Your task to perform on an android device: Go to location settings Image 0: 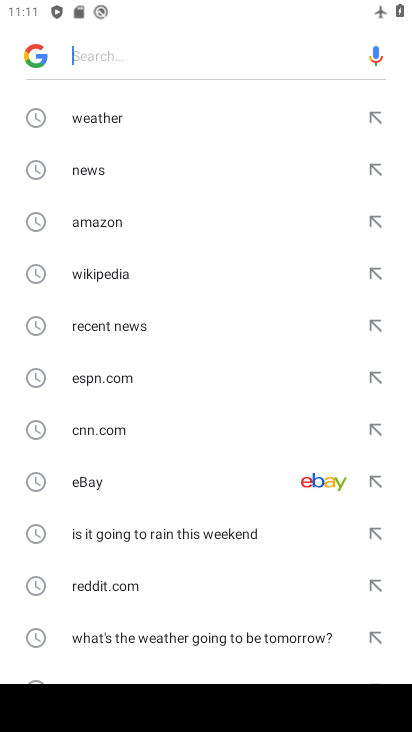
Step 0: press home button
Your task to perform on an android device: Go to location settings Image 1: 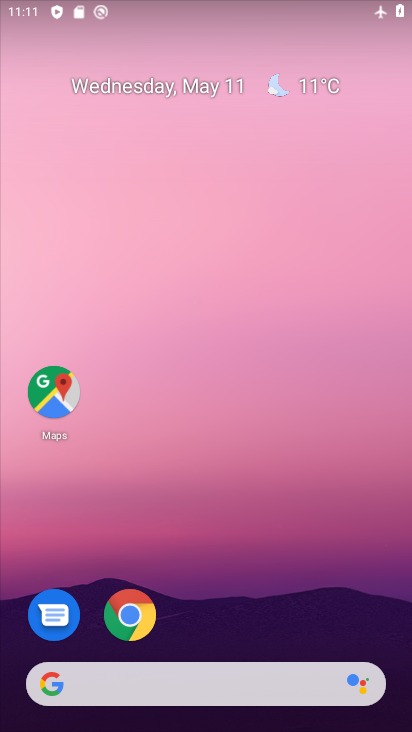
Step 1: drag from (276, 499) to (305, 72)
Your task to perform on an android device: Go to location settings Image 2: 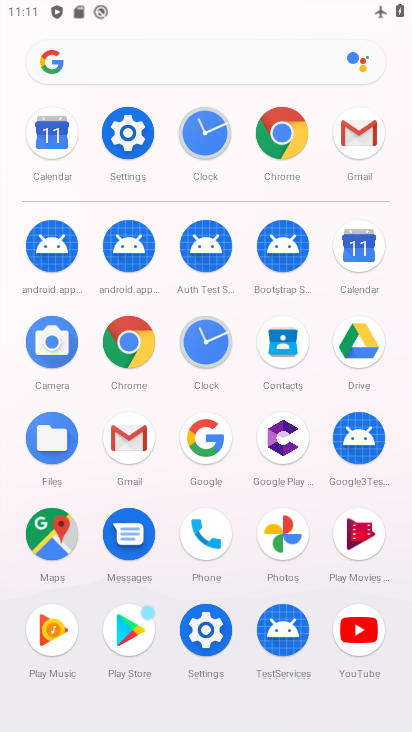
Step 2: click (126, 129)
Your task to perform on an android device: Go to location settings Image 3: 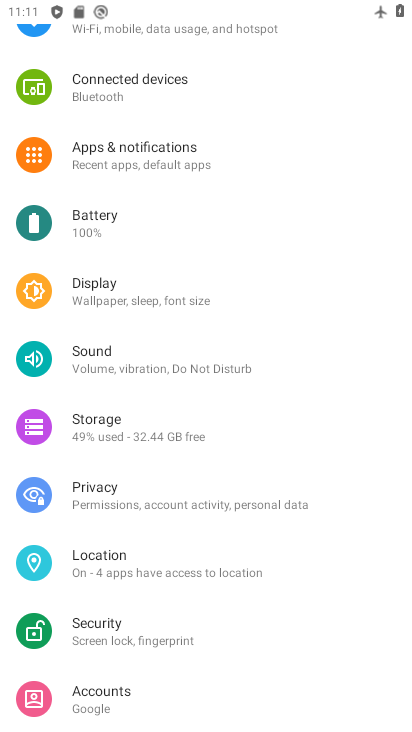
Step 3: click (148, 573)
Your task to perform on an android device: Go to location settings Image 4: 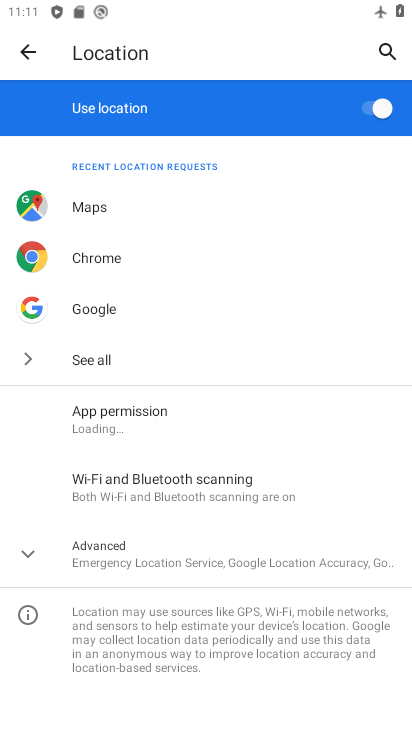
Step 4: task complete